Your task to perform on an android device: Open Google Maps and go to "Timeline" Image 0: 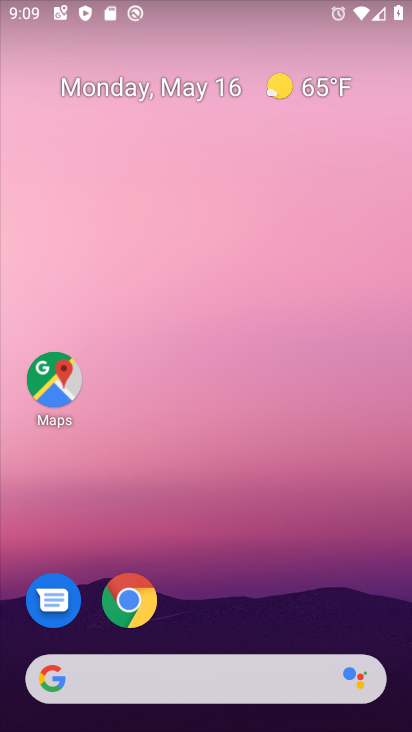
Step 0: drag from (200, 447) to (244, 163)
Your task to perform on an android device: Open Google Maps and go to "Timeline" Image 1: 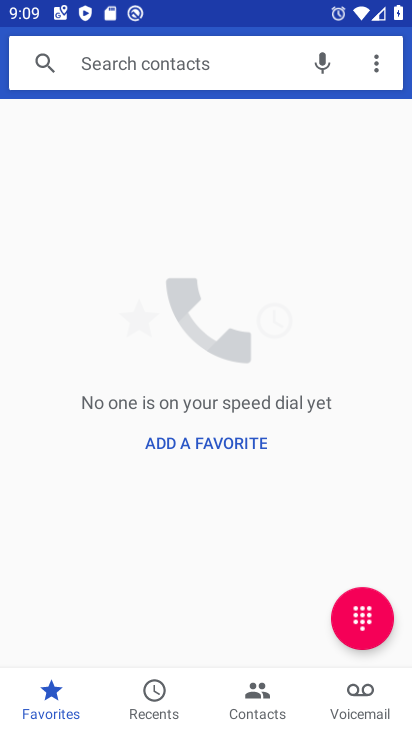
Step 1: click (372, 688)
Your task to perform on an android device: Open Google Maps and go to "Timeline" Image 2: 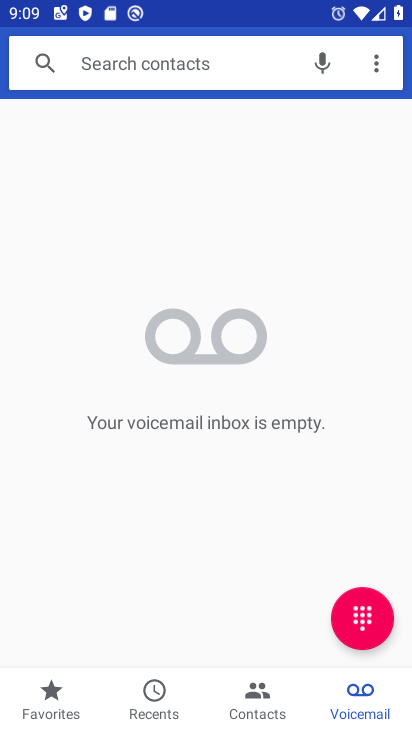
Step 2: press home button
Your task to perform on an android device: Open Google Maps and go to "Timeline" Image 3: 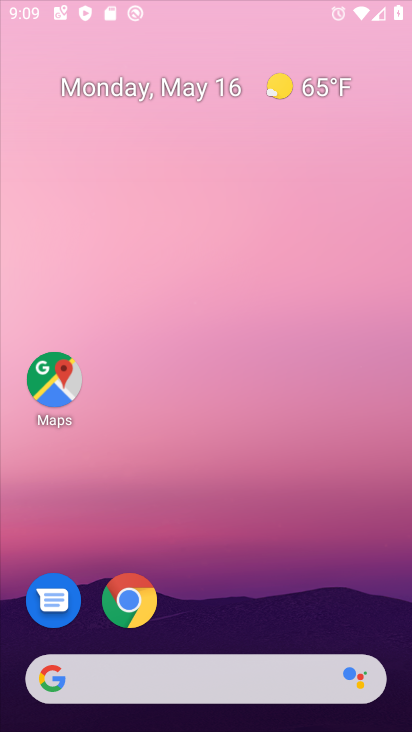
Step 3: drag from (192, 582) to (265, 36)
Your task to perform on an android device: Open Google Maps and go to "Timeline" Image 4: 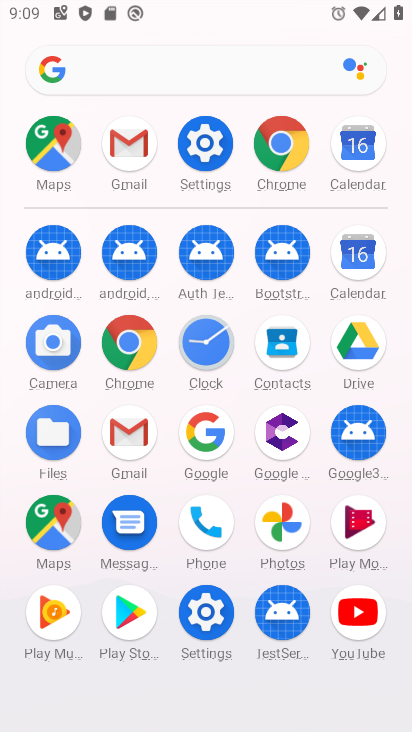
Step 4: click (65, 531)
Your task to perform on an android device: Open Google Maps and go to "Timeline" Image 5: 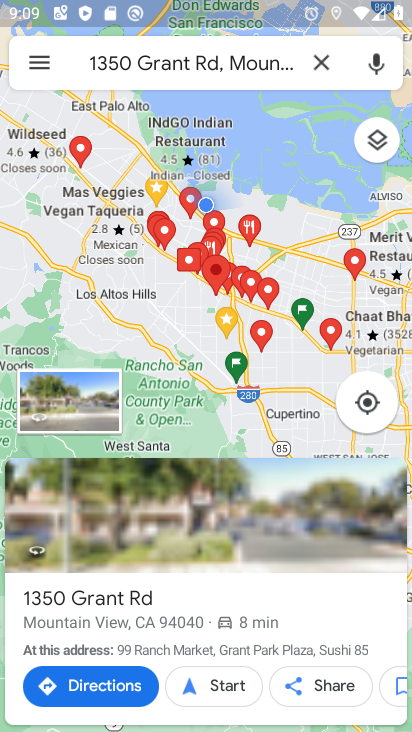
Step 5: click (51, 61)
Your task to perform on an android device: Open Google Maps and go to "Timeline" Image 6: 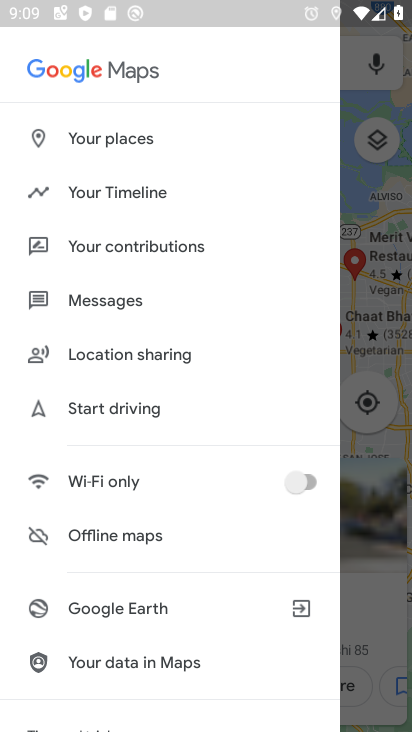
Step 6: click (104, 197)
Your task to perform on an android device: Open Google Maps and go to "Timeline" Image 7: 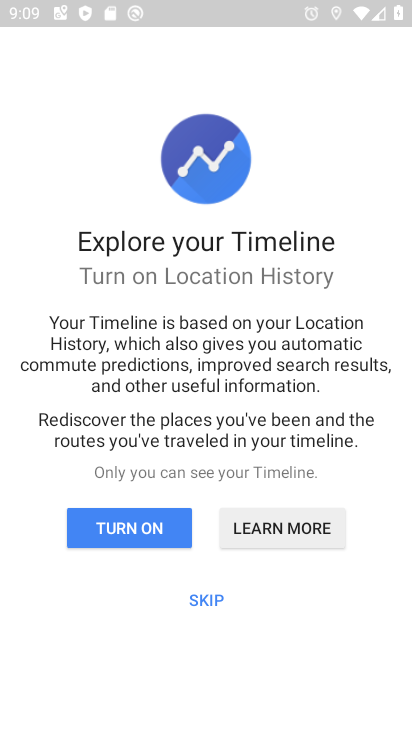
Step 7: click (216, 601)
Your task to perform on an android device: Open Google Maps and go to "Timeline" Image 8: 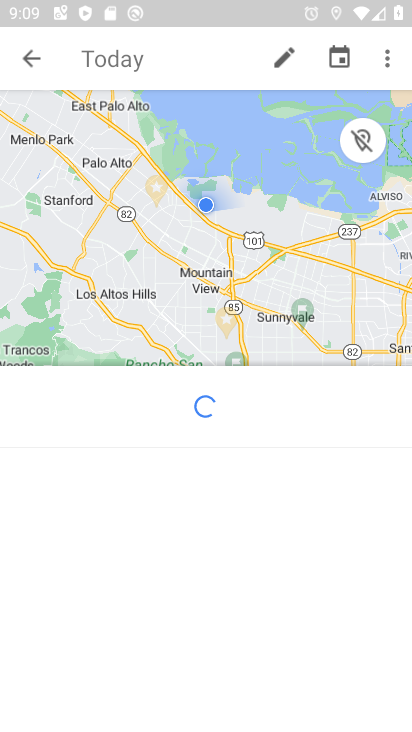
Step 8: drag from (215, 599) to (263, 198)
Your task to perform on an android device: Open Google Maps and go to "Timeline" Image 9: 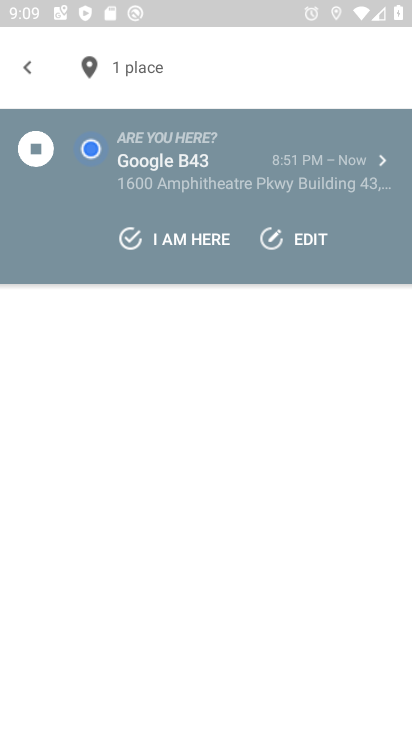
Step 9: click (273, 263)
Your task to perform on an android device: Open Google Maps and go to "Timeline" Image 10: 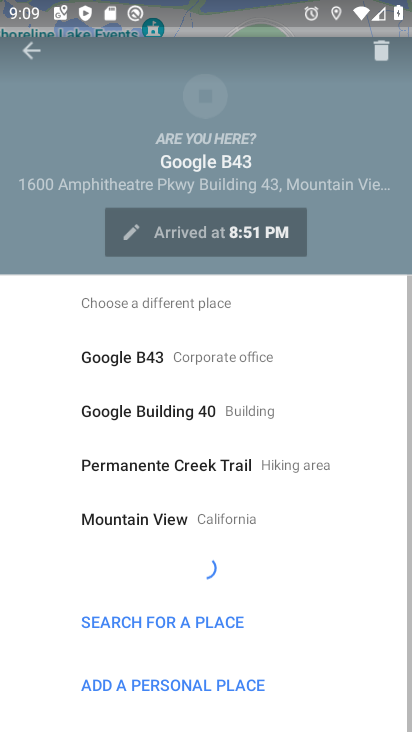
Step 10: task complete